Your task to perform on an android device: turn smart compose on in the gmail app Image 0: 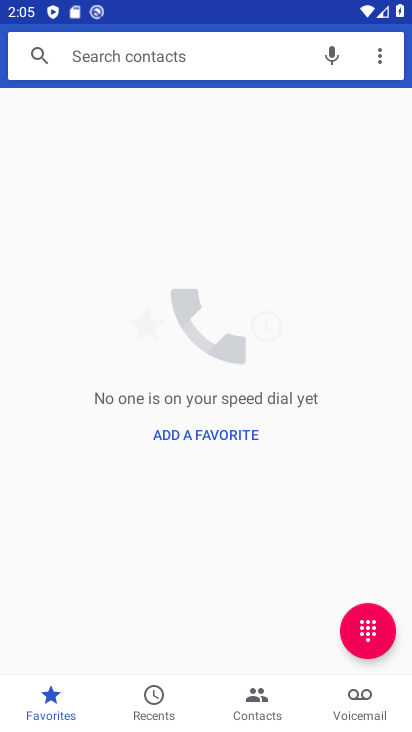
Step 0: press home button
Your task to perform on an android device: turn smart compose on in the gmail app Image 1: 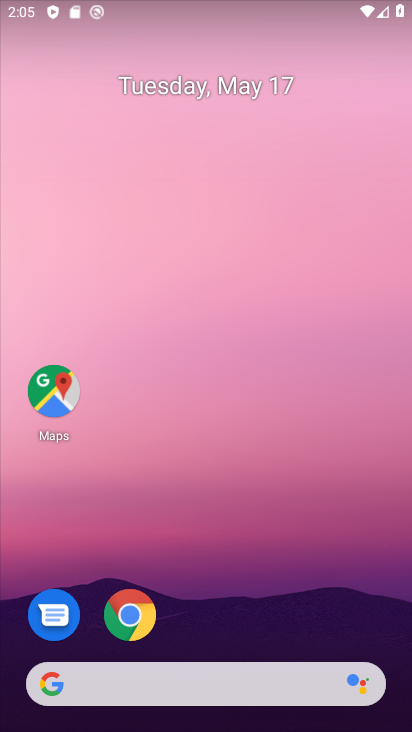
Step 1: drag from (218, 729) to (214, 238)
Your task to perform on an android device: turn smart compose on in the gmail app Image 2: 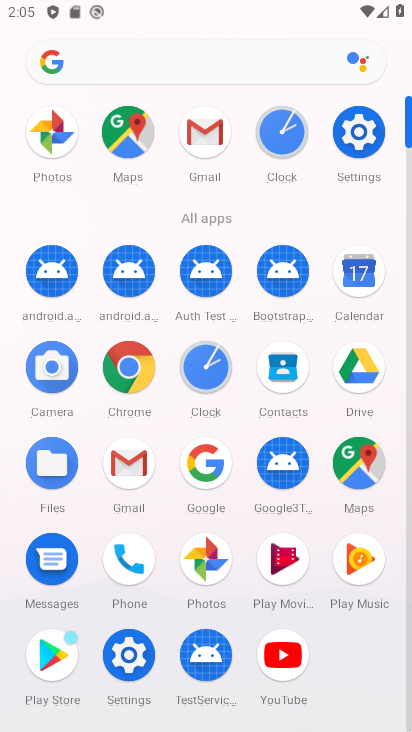
Step 2: click (129, 464)
Your task to perform on an android device: turn smart compose on in the gmail app Image 3: 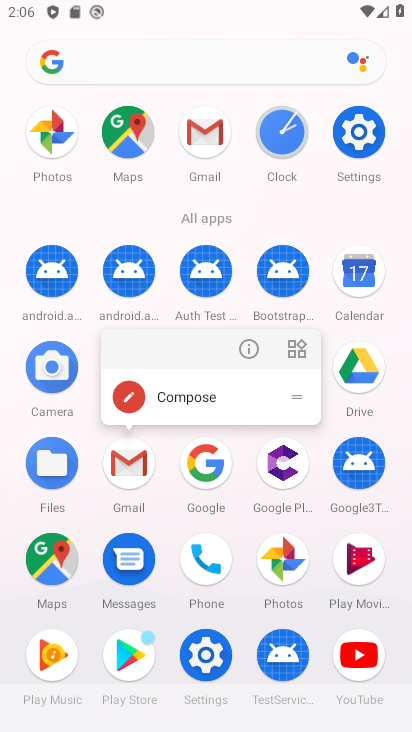
Step 3: click (129, 464)
Your task to perform on an android device: turn smart compose on in the gmail app Image 4: 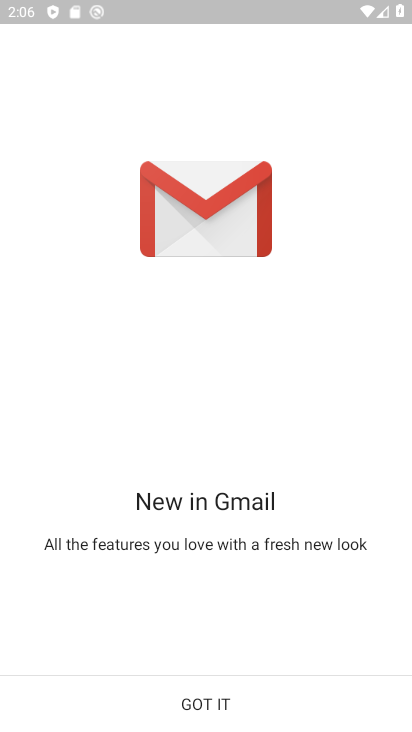
Step 4: click (202, 699)
Your task to perform on an android device: turn smart compose on in the gmail app Image 5: 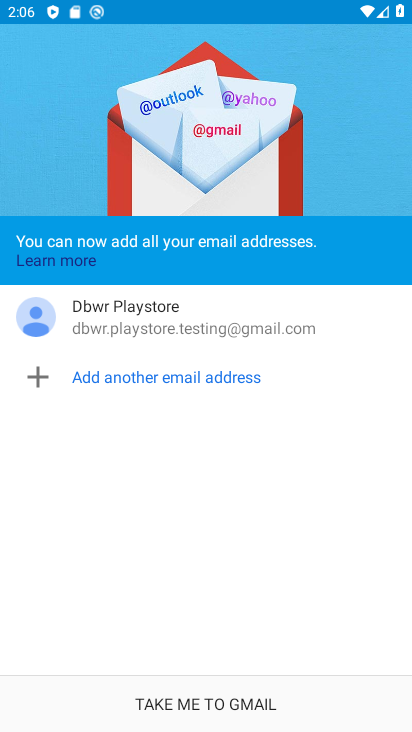
Step 5: click (173, 709)
Your task to perform on an android device: turn smart compose on in the gmail app Image 6: 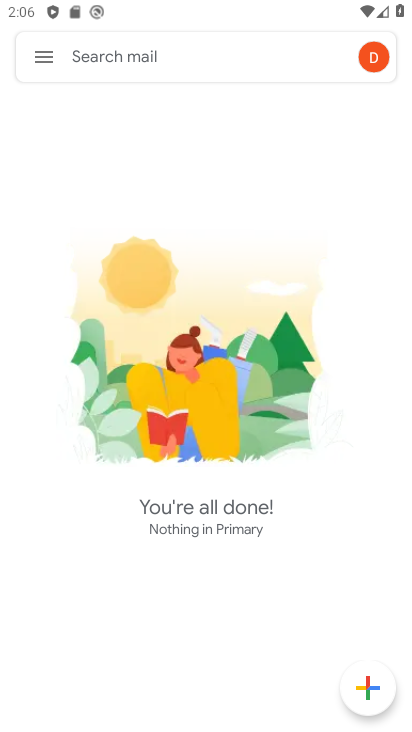
Step 6: click (47, 53)
Your task to perform on an android device: turn smart compose on in the gmail app Image 7: 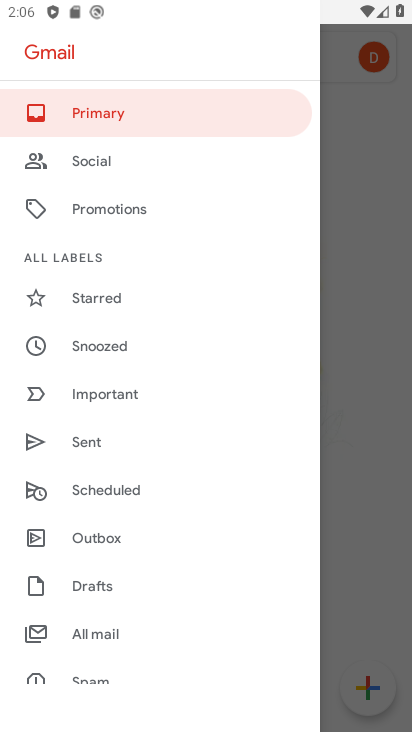
Step 7: drag from (93, 649) to (104, 324)
Your task to perform on an android device: turn smart compose on in the gmail app Image 8: 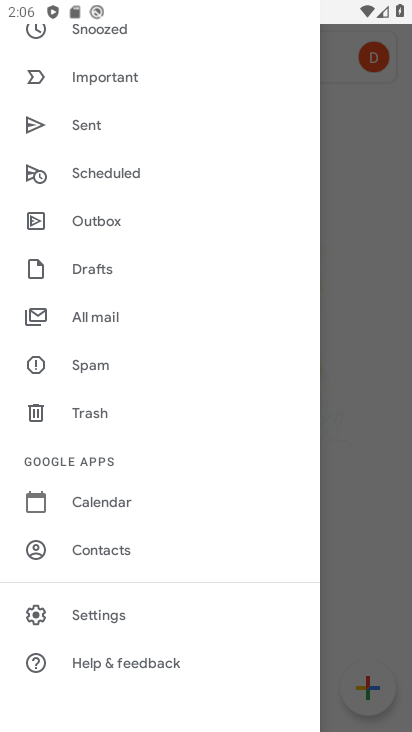
Step 8: click (102, 605)
Your task to perform on an android device: turn smart compose on in the gmail app Image 9: 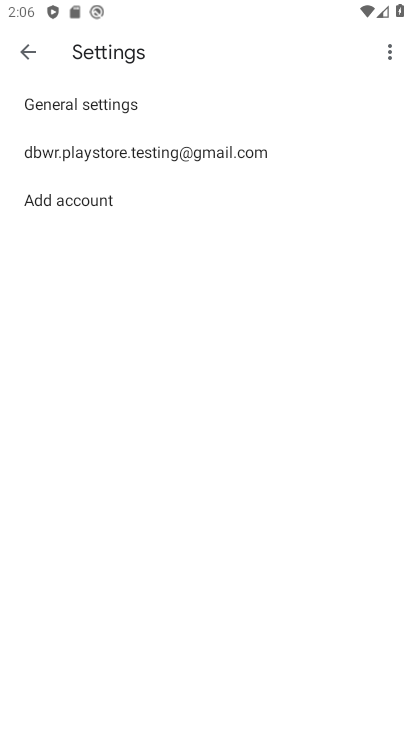
Step 9: click (176, 141)
Your task to perform on an android device: turn smart compose on in the gmail app Image 10: 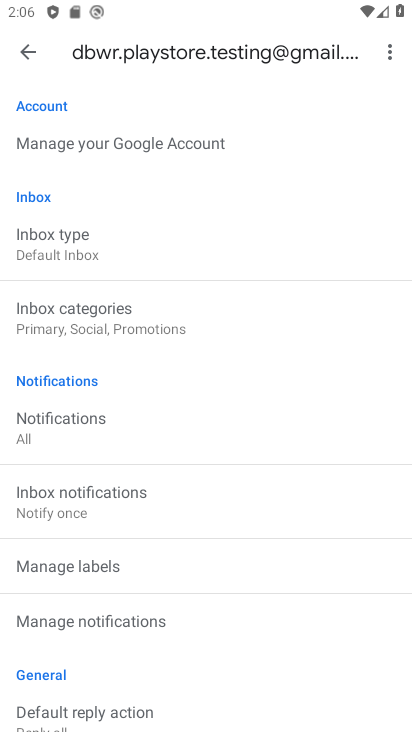
Step 10: task complete